Your task to perform on an android device: change the clock display to digital Image 0: 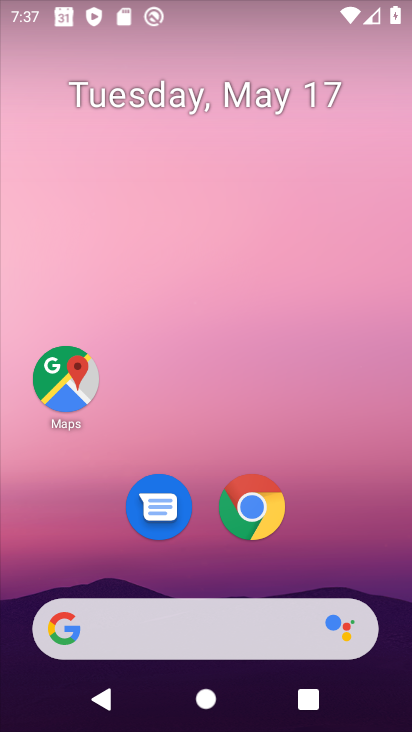
Step 0: drag from (347, 546) to (272, 12)
Your task to perform on an android device: change the clock display to digital Image 1: 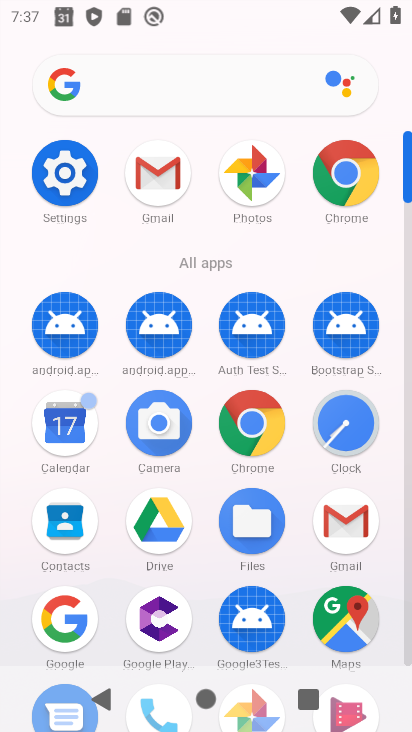
Step 1: click (353, 427)
Your task to perform on an android device: change the clock display to digital Image 2: 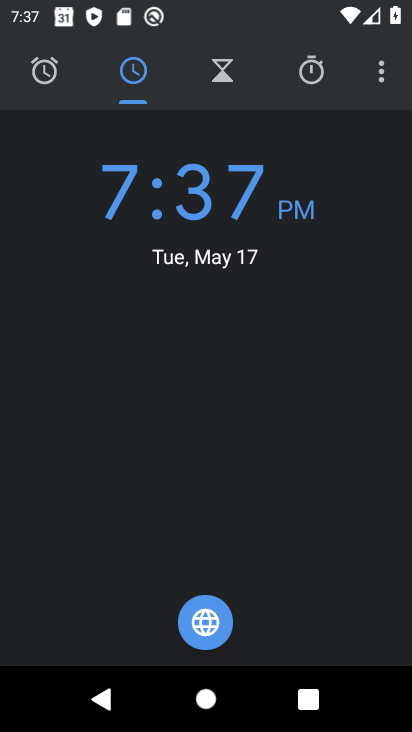
Step 2: click (379, 76)
Your task to perform on an android device: change the clock display to digital Image 3: 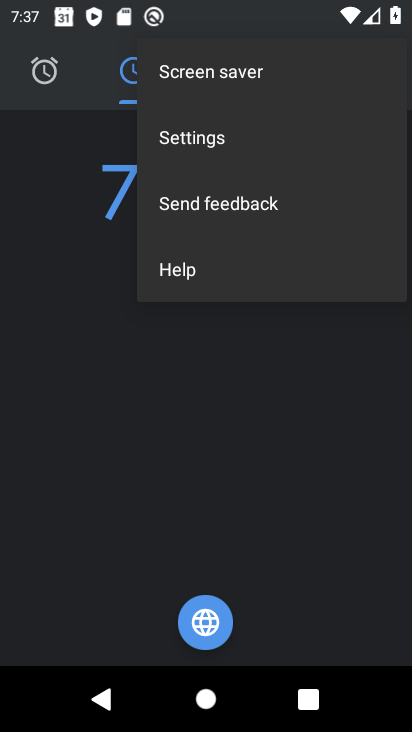
Step 3: click (226, 129)
Your task to perform on an android device: change the clock display to digital Image 4: 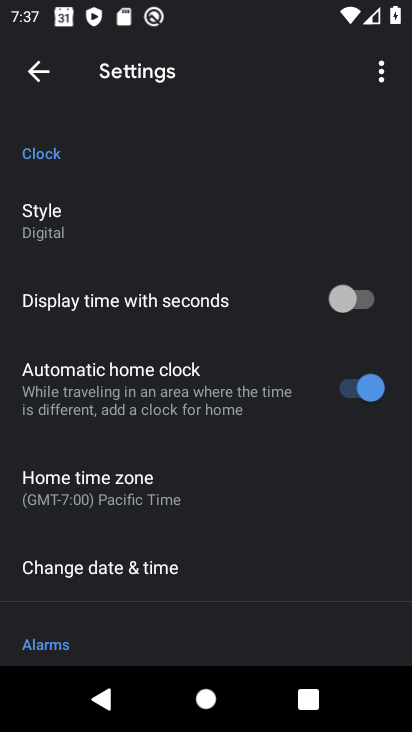
Step 4: task complete